Your task to perform on an android device: open chrome and create a bookmark for the current page Image 0: 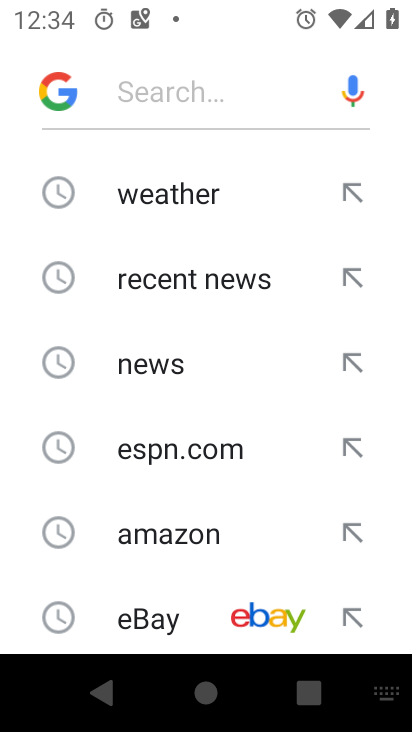
Step 0: press home button
Your task to perform on an android device: open chrome and create a bookmark for the current page Image 1: 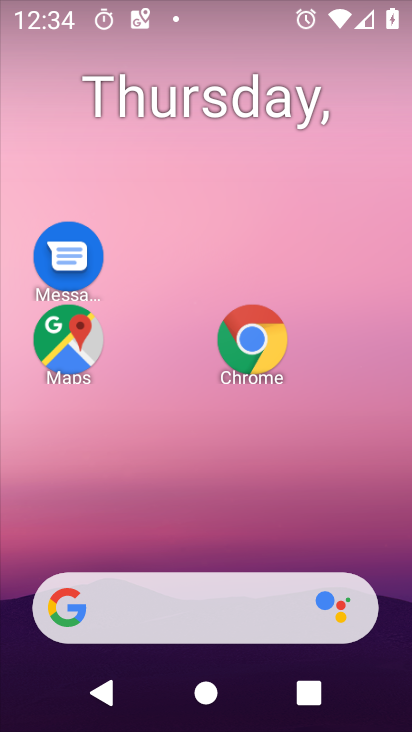
Step 1: click (253, 340)
Your task to perform on an android device: open chrome and create a bookmark for the current page Image 2: 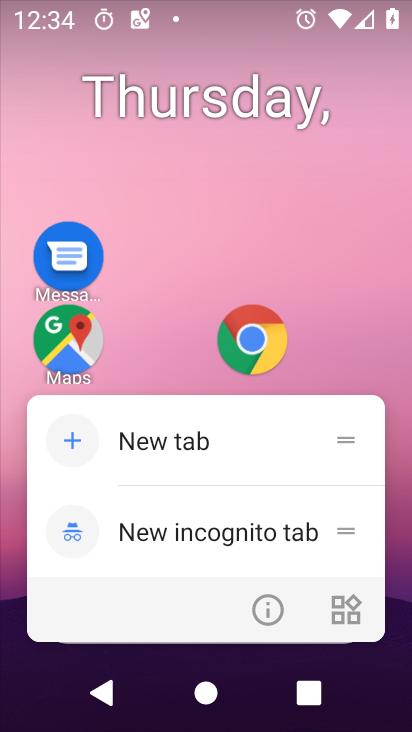
Step 2: click (253, 343)
Your task to perform on an android device: open chrome and create a bookmark for the current page Image 3: 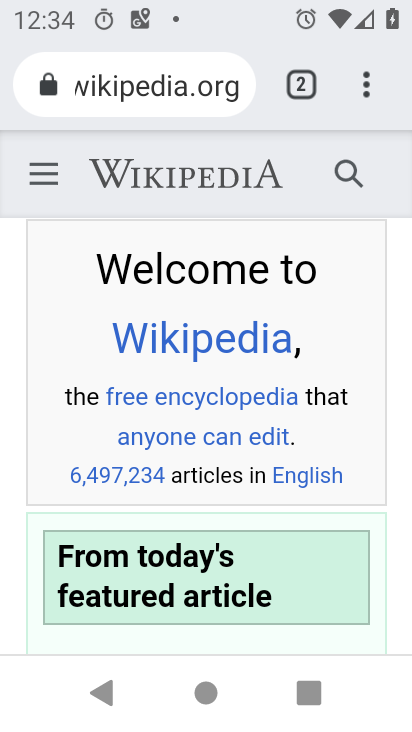
Step 3: click (357, 83)
Your task to perform on an android device: open chrome and create a bookmark for the current page Image 4: 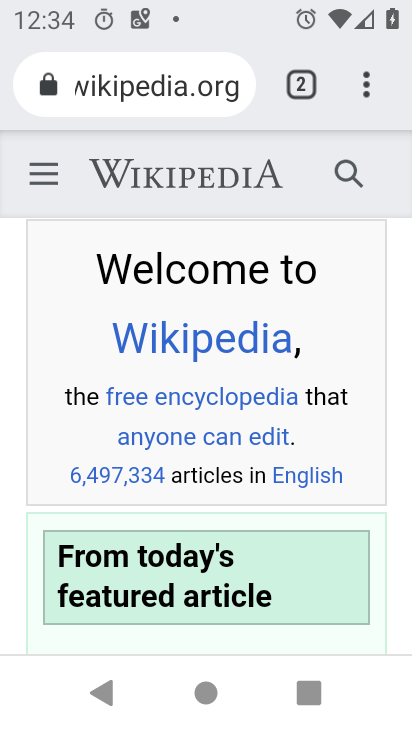
Step 4: click (360, 80)
Your task to perform on an android device: open chrome and create a bookmark for the current page Image 5: 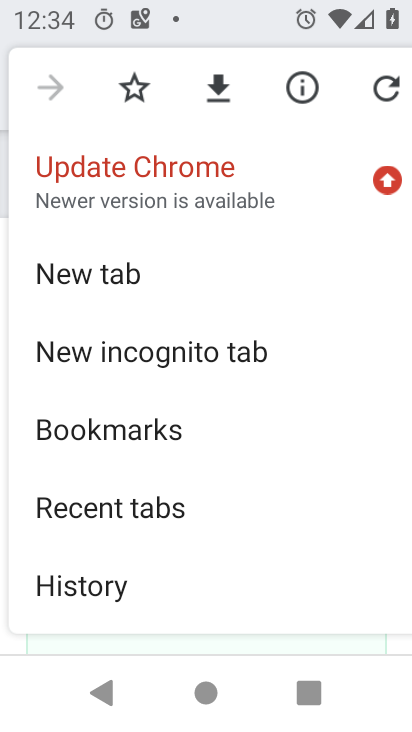
Step 5: click (143, 84)
Your task to perform on an android device: open chrome and create a bookmark for the current page Image 6: 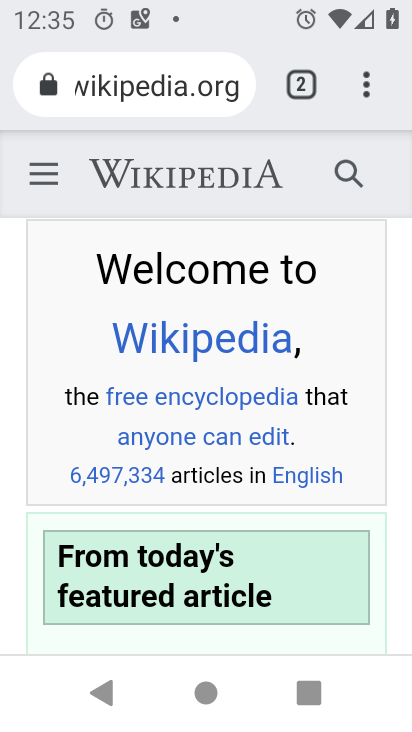
Step 6: task complete